Your task to perform on an android device: Go to Google maps Image 0: 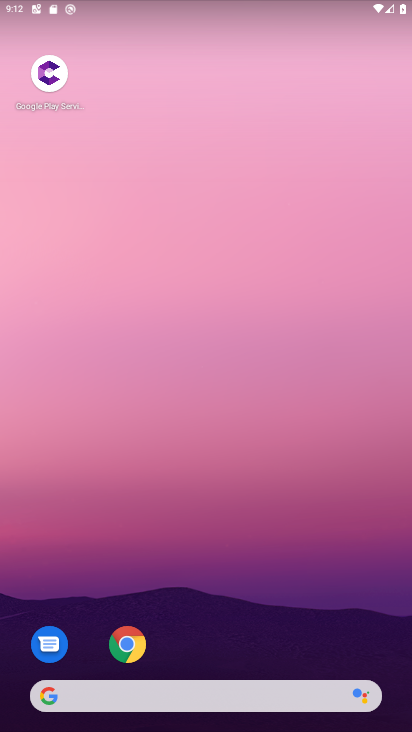
Step 0: drag from (238, 628) to (236, 94)
Your task to perform on an android device: Go to Google maps Image 1: 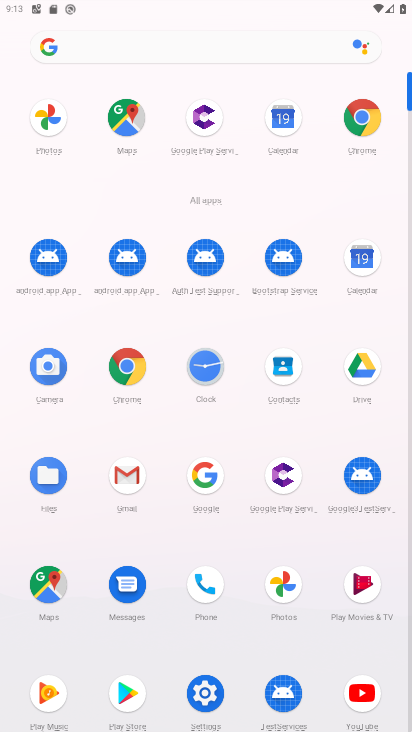
Step 1: click (51, 595)
Your task to perform on an android device: Go to Google maps Image 2: 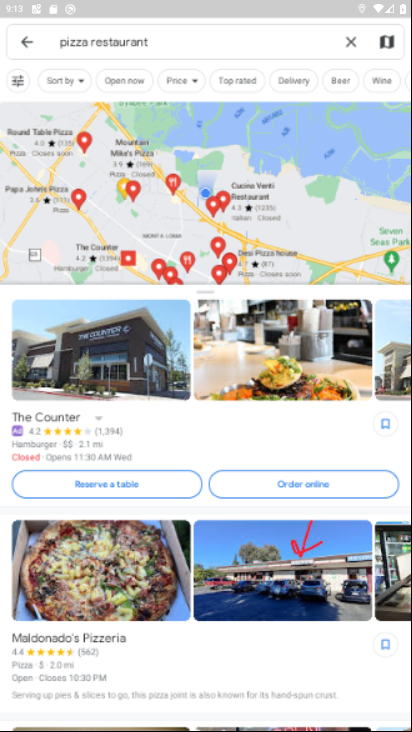
Step 2: click (348, 41)
Your task to perform on an android device: Go to Google maps Image 3: 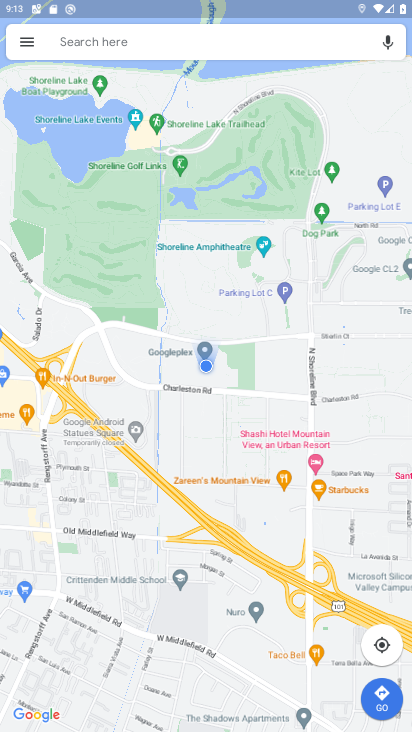
Step 3: task complete